Your task to perform on an android device: check google app version Image 0: 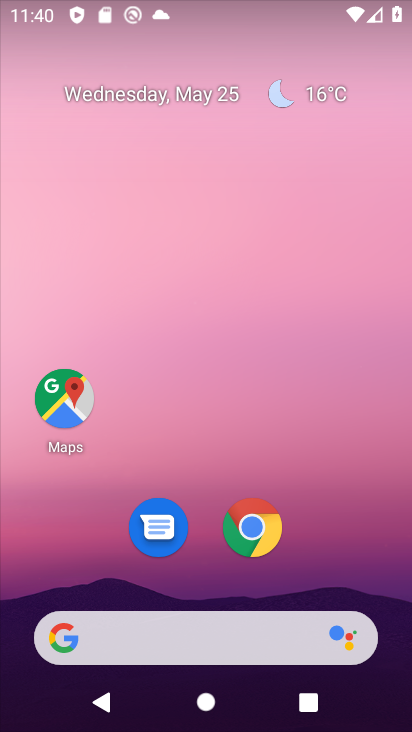
Step 0: press home button
Your task to perform on an android device: check google app version Image 1: 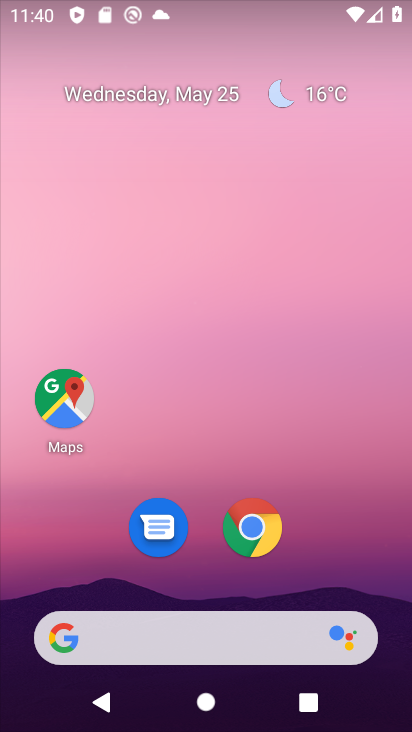
Step 1: drag from (349, 539) to (345, 167)
Your task to perform on an android device: check google app version Image 2: 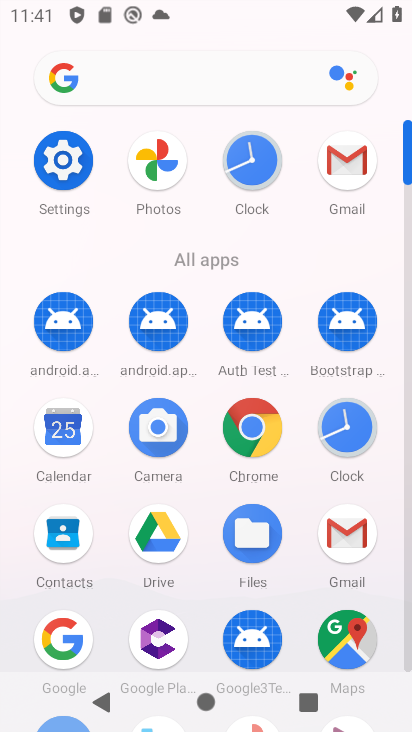
Step 2: click (65, 659)
Your task to perform on an android device: check google app version Image 3: 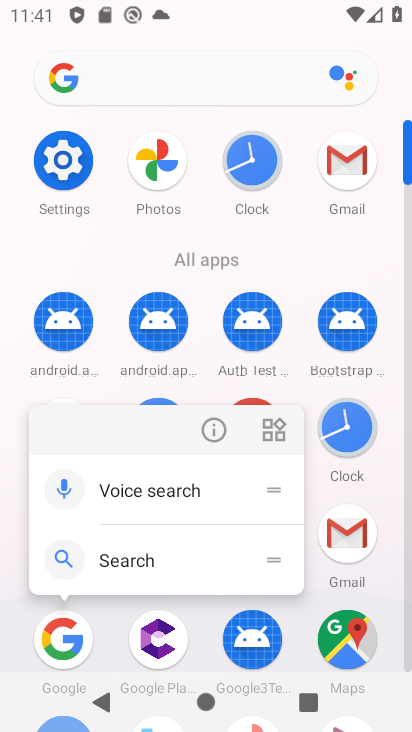
Step 3: click (209, 428)
Your task to perform on an android device: check google app version Image 4: 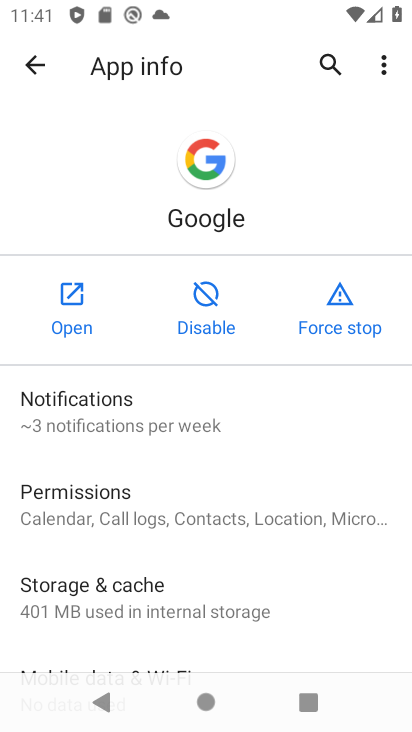
Step 4: drag from (237, 592) to (218, 150)
Your task to perform on an android device: check google app version Image 5: 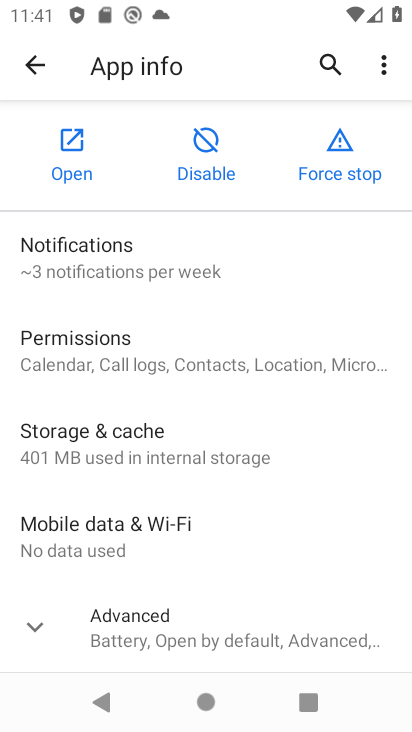
Step 5: click (212, 638)
Your task to perform on an android device: check google app version Image 6: 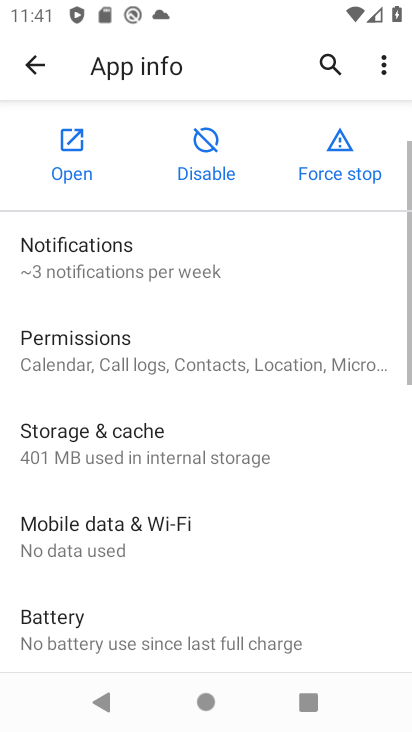
Step 6: task complete